Your task to perform on an android device: turn on airplane mode Image 0: 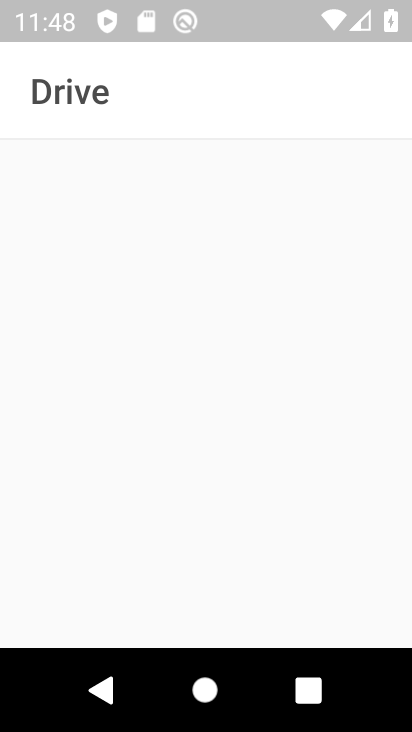
Step 0: press home button
Your task to perform on an android device: turn on airplane mode Image 1: 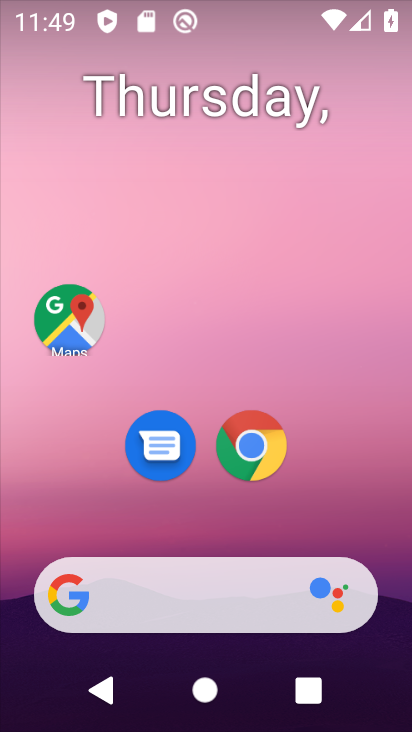
Step 1: drag from (395, 514) to (325, 6)
Your task to perform on an android device: turn on airplane mode Image 2: 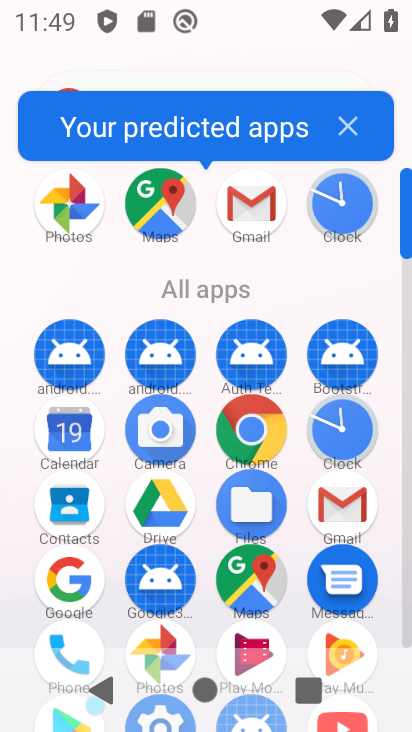
Step 2: click (406, 611)
Your task to perform on an android device: turn on airplane mode Image 3: 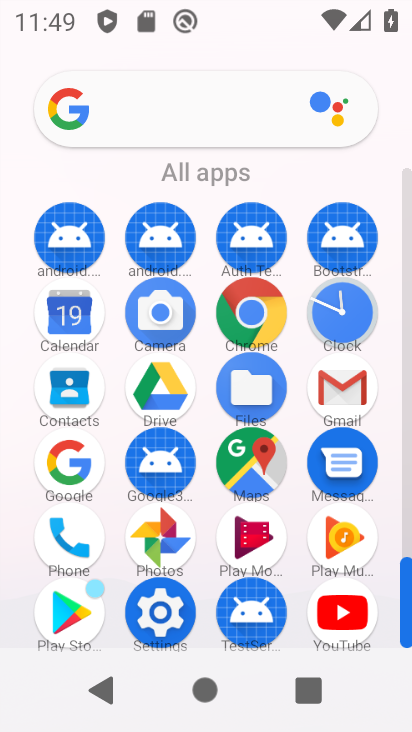
Step 3: click (164, 616)
Your task to perform on an android device: turn on airplane mode Image 4: 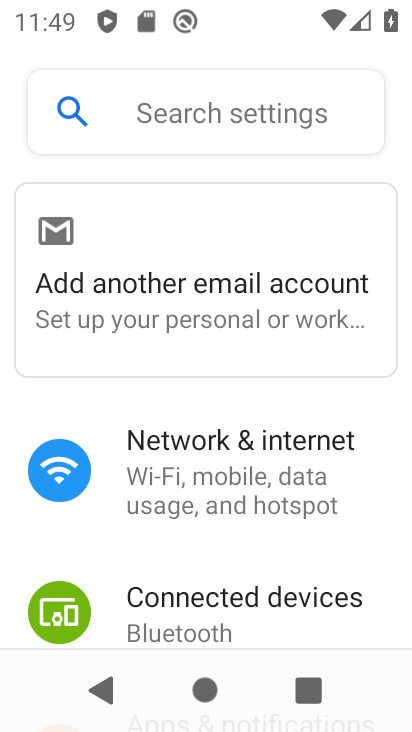
Step 4: click (321, 456)
Your task to perform on an android device: turn on airplane mode Image 5: 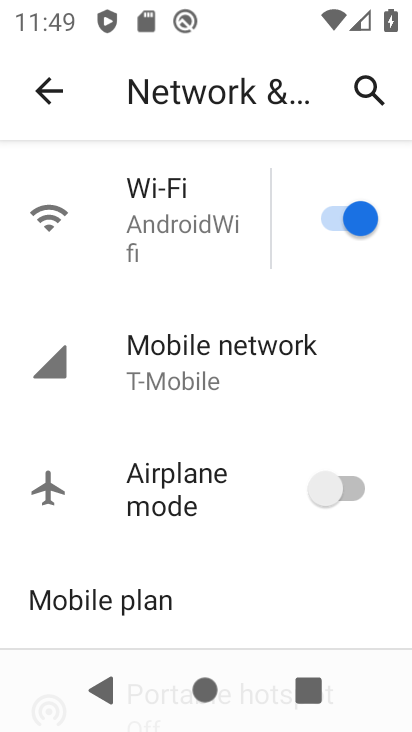
Step 5: click (350, 483)
Your task to perform on an android device: turn on airplane mode Image 6: 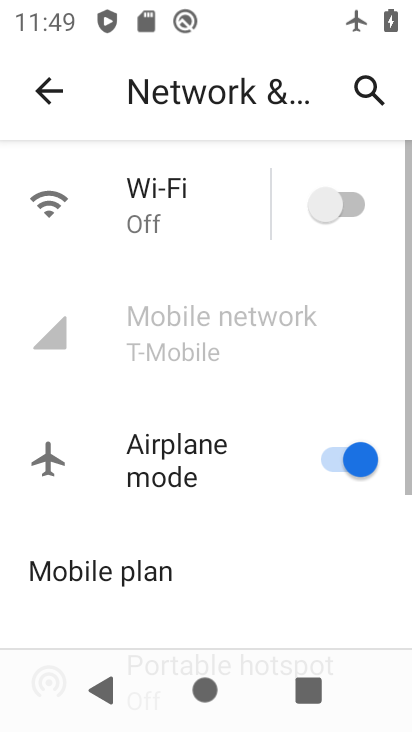
Step 6: task complete